Your task to perform on an android device: Turn off the flashlight Image 0: 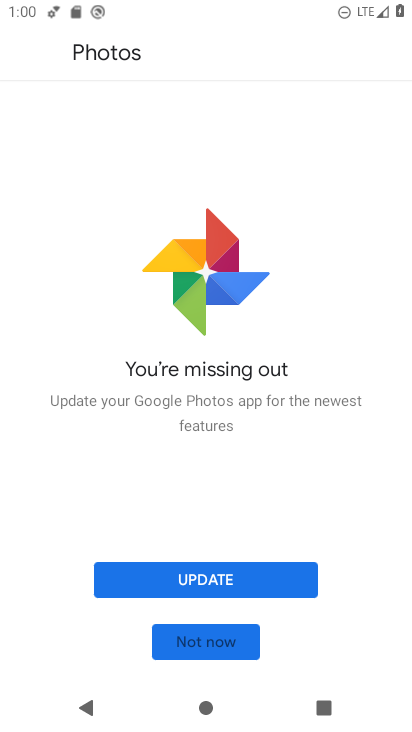
Step 0: press home button
Your task to perform on an android device: Turn off the flashlight Image 1: 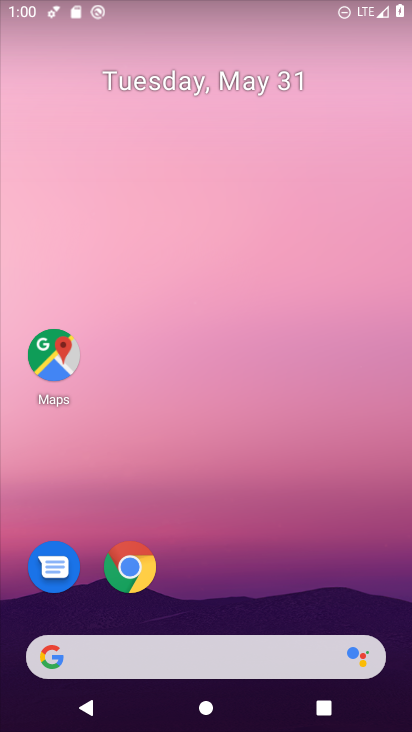
Step 1: drag from (199, 596) to (219, 146)
Your task to perform on an android device: Turn off the flashlight Image 2: 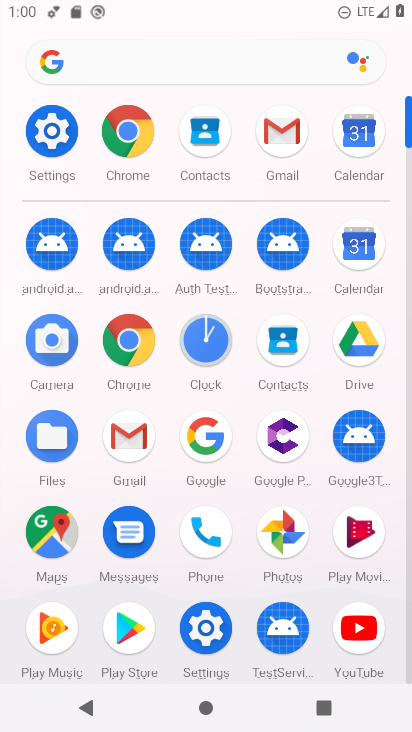
Step 2: click (57, 135)
Your task to perform on an android device: Turn off the flashlight Image 3: 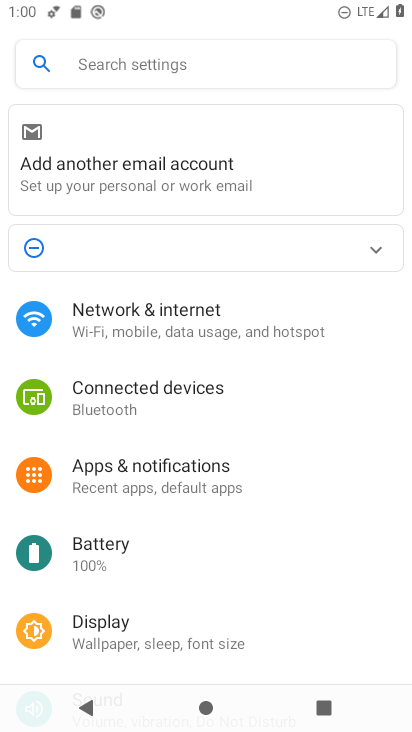
Step 3: task complete